Your task to perform on an android device: open app "Grab" (install if not already installed) Image 0: 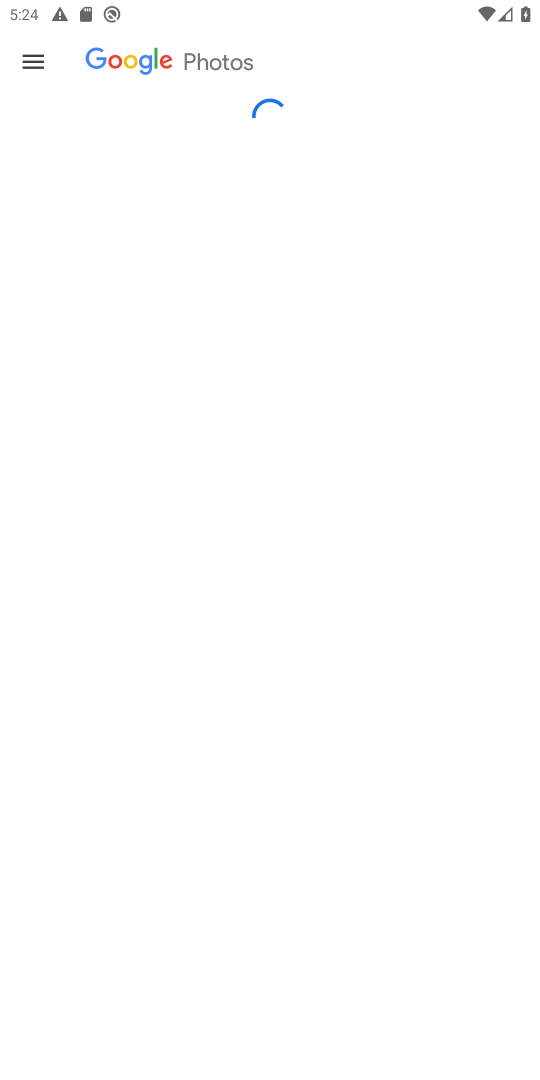
Step 0: press home button
Your task to perform on an android device: open app "Grab" (install if not already installed) Image 1: 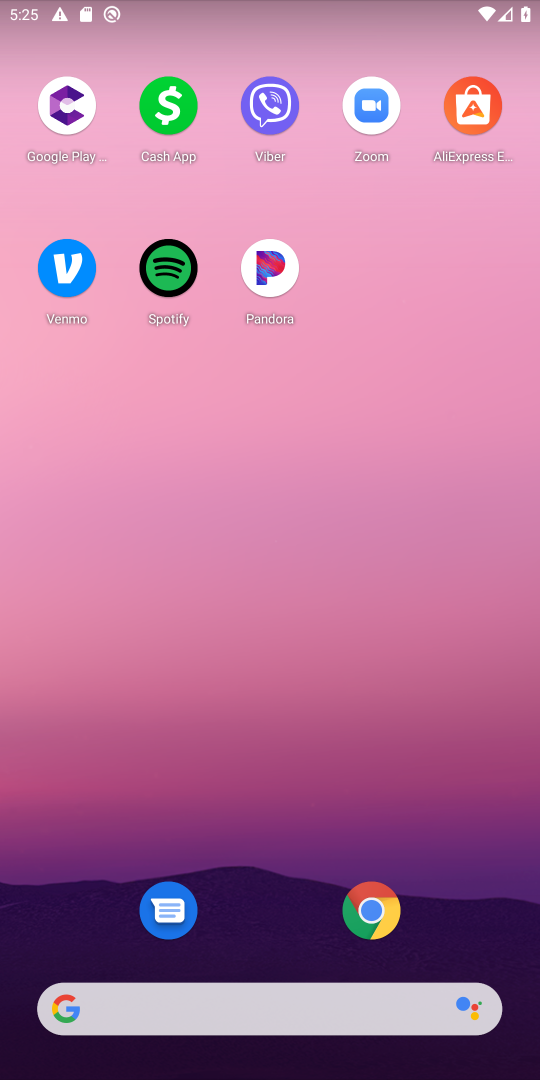
Step 1: drag from (272, 997) to (307, 120)
Your task to perform on an android device: open app "Grab" (install if not already installed) Image 2: 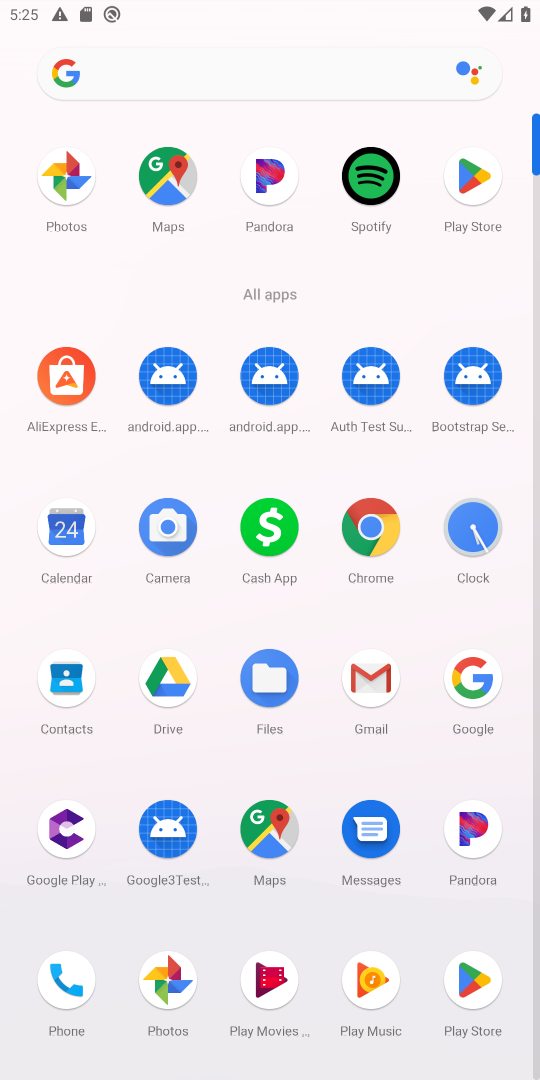
Step 2: click (464, 145)
Your task to perform on an android device: open app "Grab" (install if not already installed) Image 3: 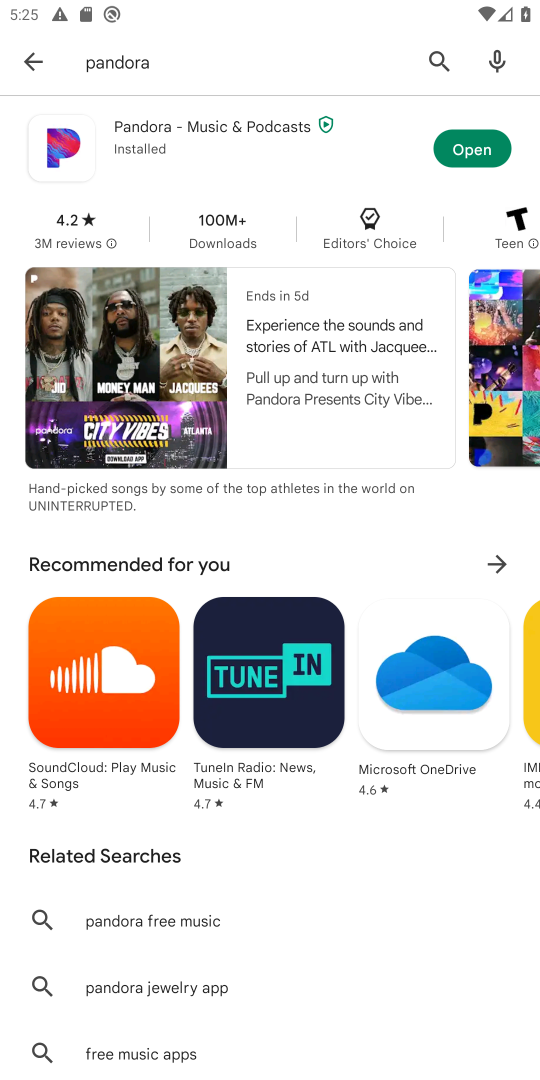
Step 3: click (423, 52)
Your task to perform on an android device: open app "Grab" (install if not already installed) Image 4: 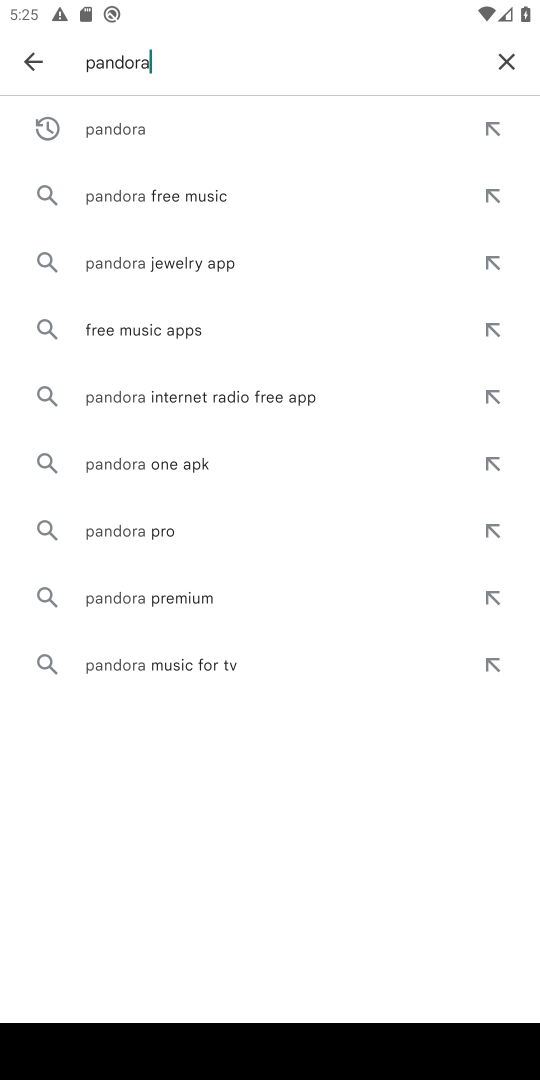
Step 4: click (509, 63)
Your task to perform on an android device: open app "Grab" (install if not already installed) Image 5: 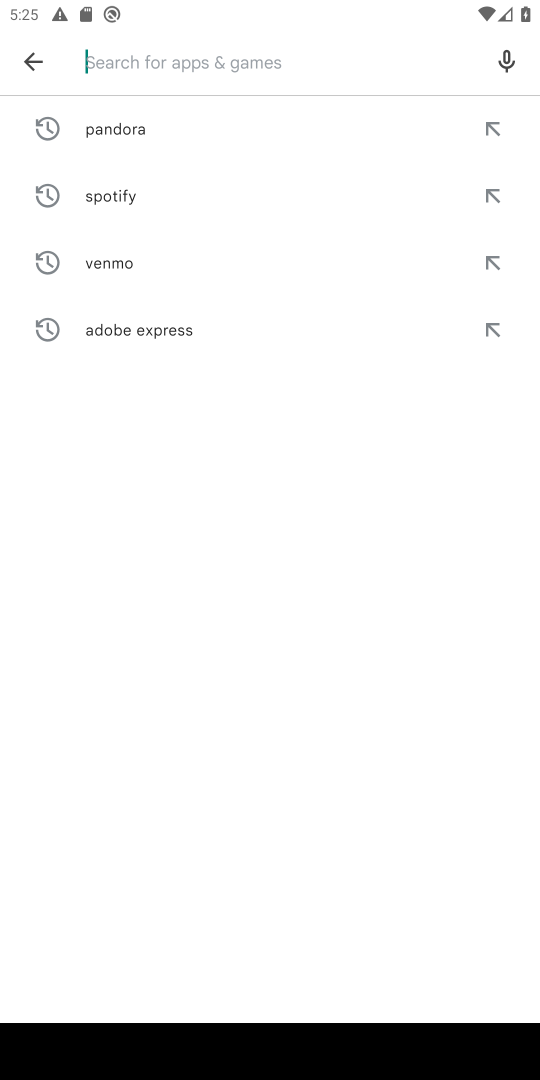
Step 5: type "grab"
Your task to perform on an android device: open app "Grab" (install if not already installed) Image 6: 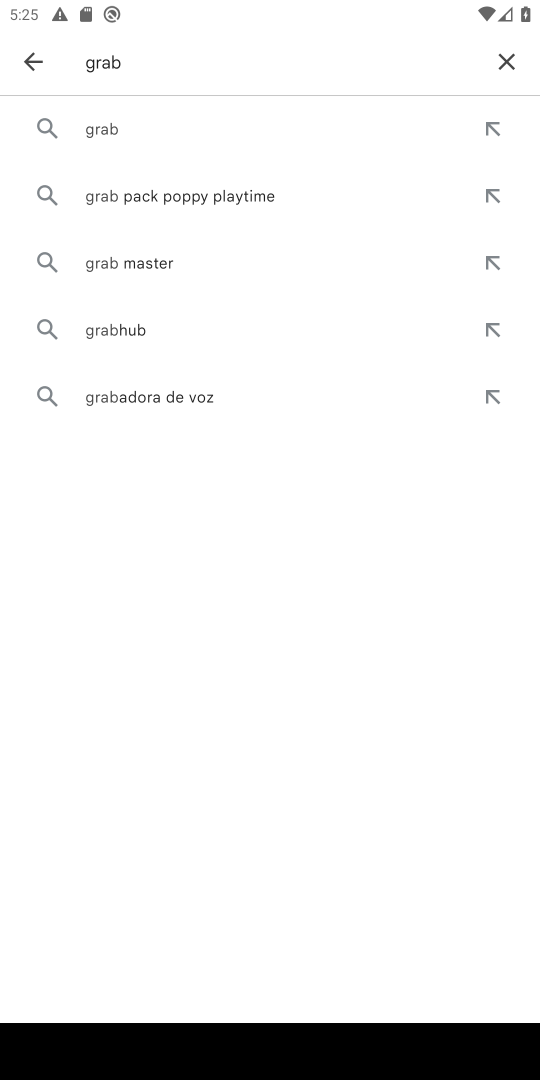
Step 6: click (128, 144)
Your task to perform on an android device: open app "Grab" (install if not already installed) Image 7: 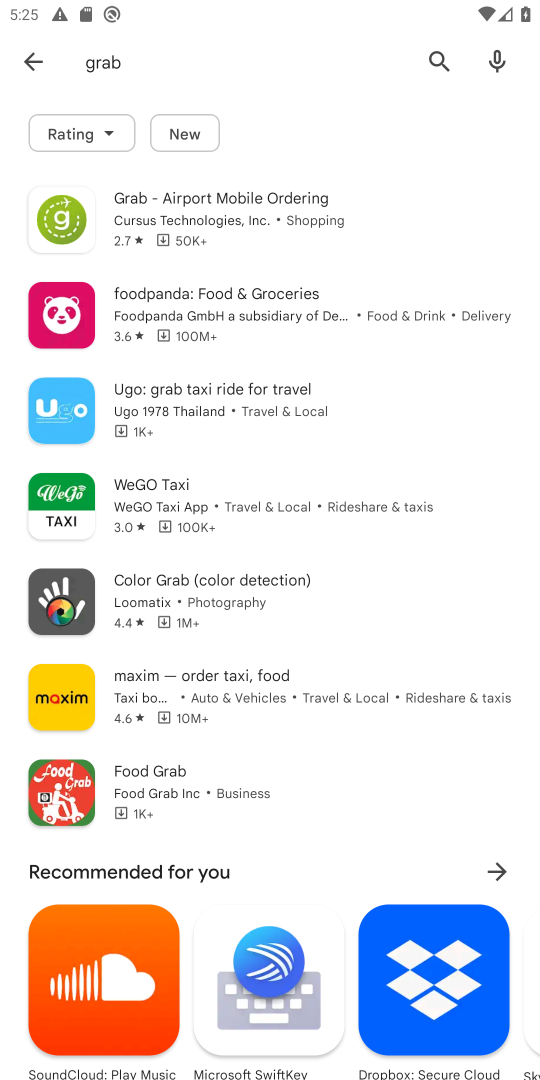
Step 7: task complete